Your task to perform on an android device: When is my next meeting? Image 0: 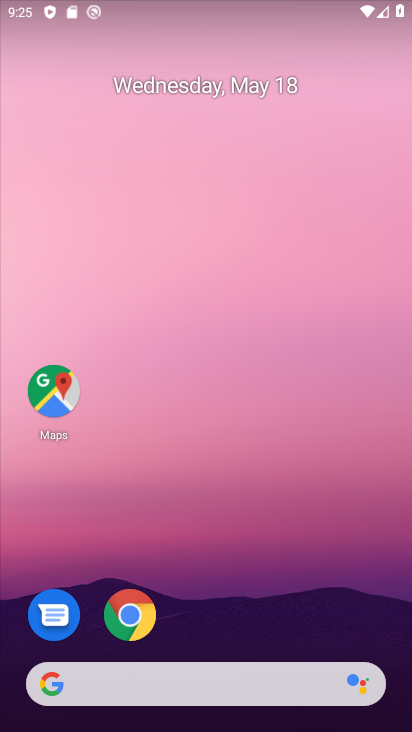
Step 0: drag from (222, 605) to (260, 94)
Your task to perform on an android device: When is my next meeting? Image 1: 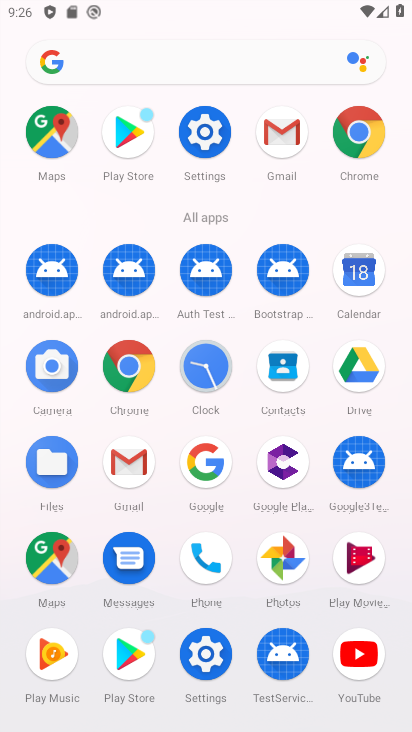
Step 1: click (368, 270)
Your task to perform on an android device: When is my next meeting? Image 2: 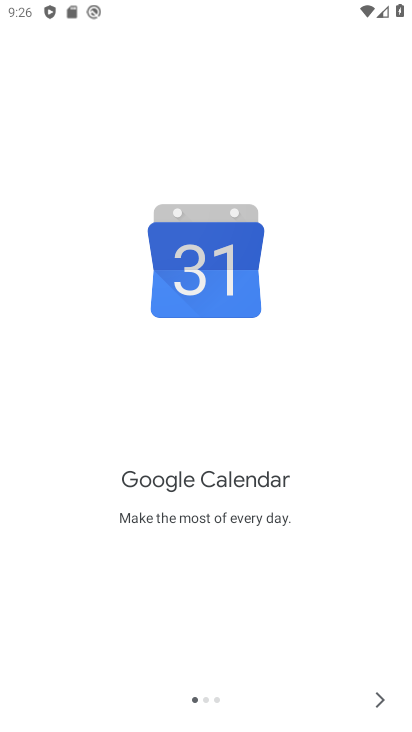
Step 2: click (371, 685)
Your task to perform on an android device: When is my next meeting? Image 3: 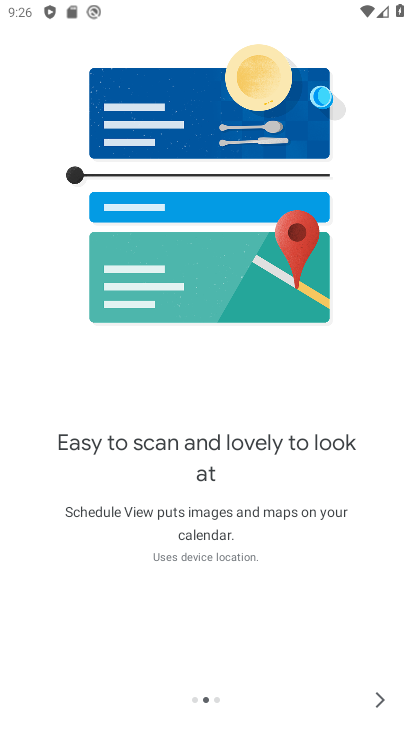
Step 3: click (374, 685)
Your task to perform on an android device: When is my next meeting? Image 4: 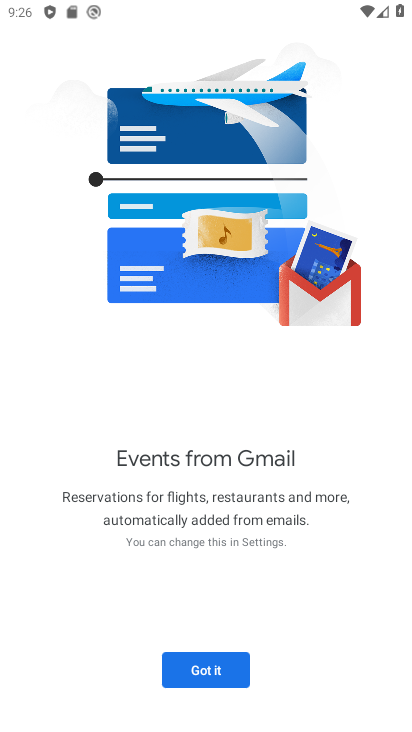
Step 4: click (214, 664)
Your task to perform on an android device: When is my next meeting? Image 5: 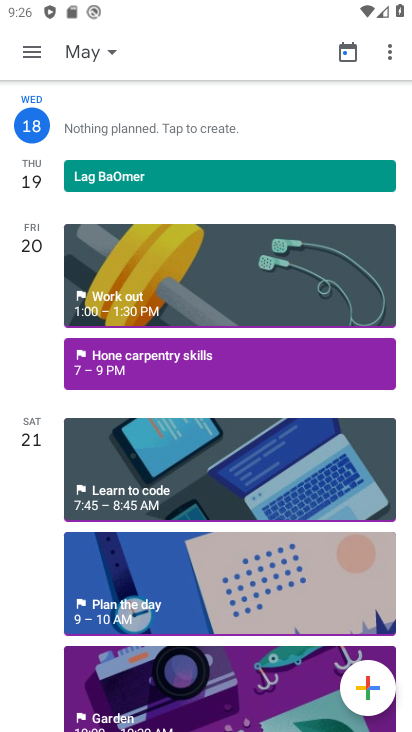
Step 5: click (100, 57)
Your task to perform on an android device: When is my next meeting? Image 6: 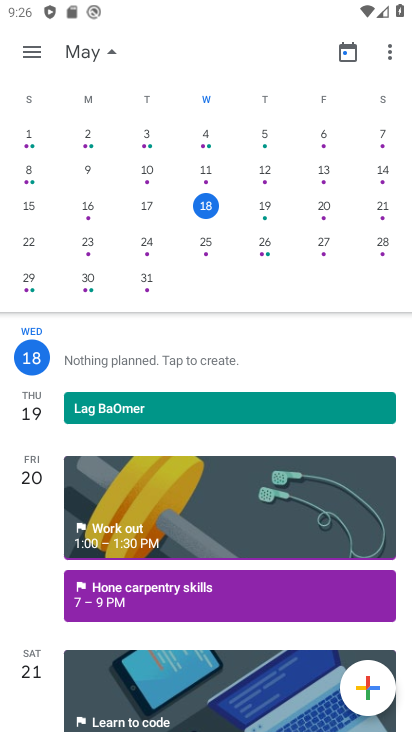
Step 6: click (268, 209)
Your task to perform on an android device: When is my next meeting? Image 7: 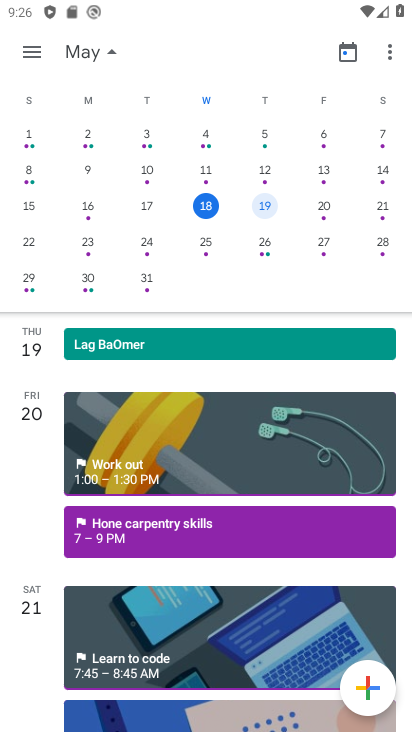
Step 7: click (263, 205)
Your task to perform on an android device: When is my next meeting? Image 8: 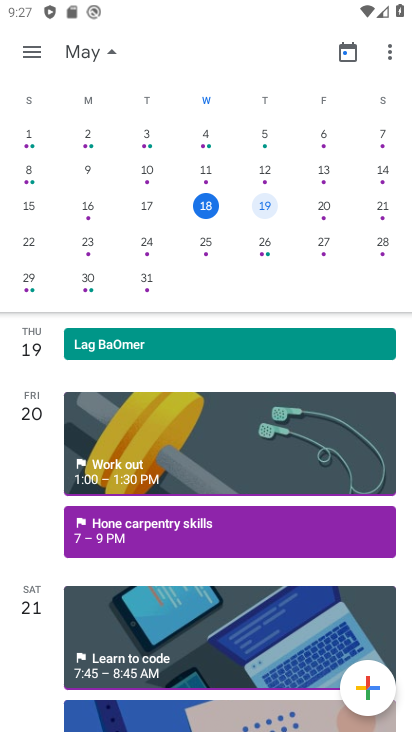
Step 8: task complete